Your task to perform on an android device: change alarm snooze length Image 0: 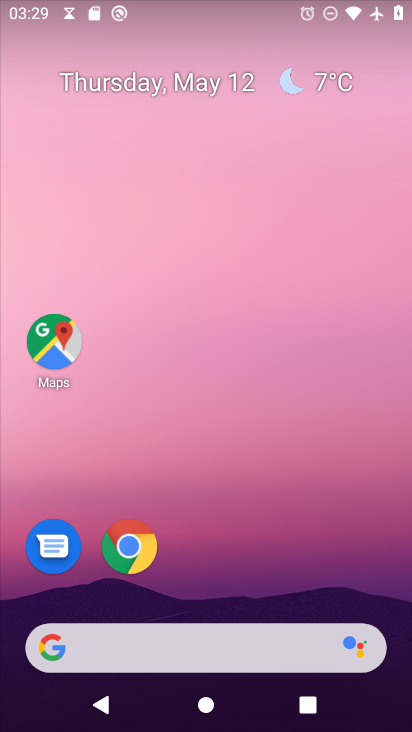
Step 0: press home button
Your task to perform on an android device: change alarm snooze length Image 1: 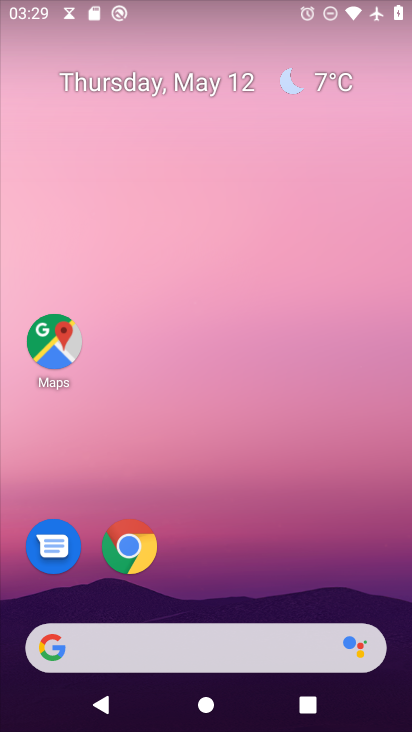
Step 1: drag from (228, 658) to (350, 146)
Your task to perform on an android device: change alarm snooze length Image 2: 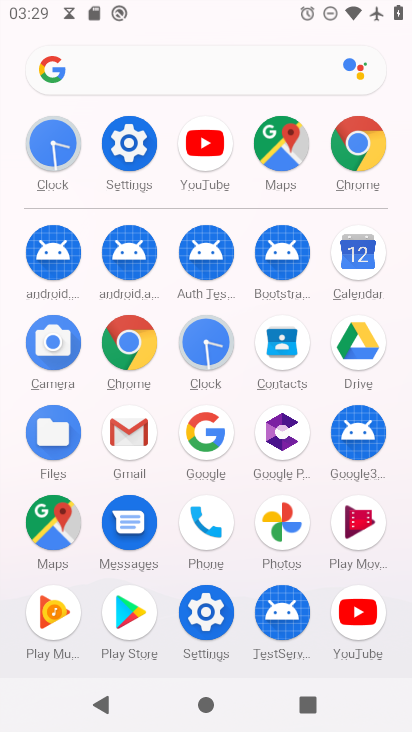
Step 2: click (203, 353)
Your task to perform on an android device: change alarm snooze length Image 3: 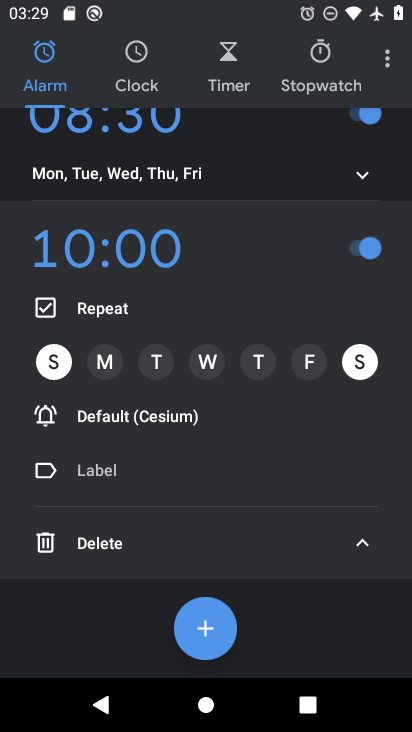
Step 3: click (390, 62)
Your task to perform on an android device: change alarm snooze length Image 4: 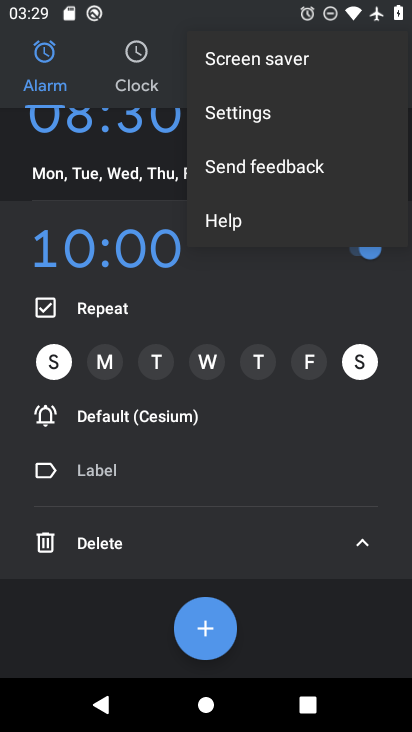
Step 4: click (266, 113)
Your task to perform on an android device: change alarm snooze length Image 5: 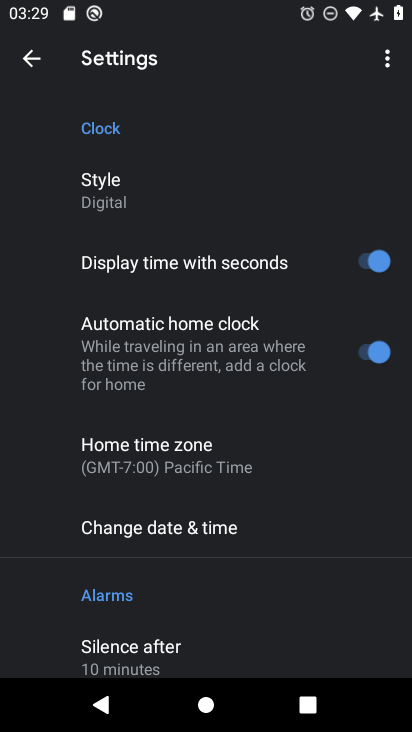
Step 5: drag from (258, 591) to (341, 242)
Your task to perform on an android device: change alarm snooze length Image 6: 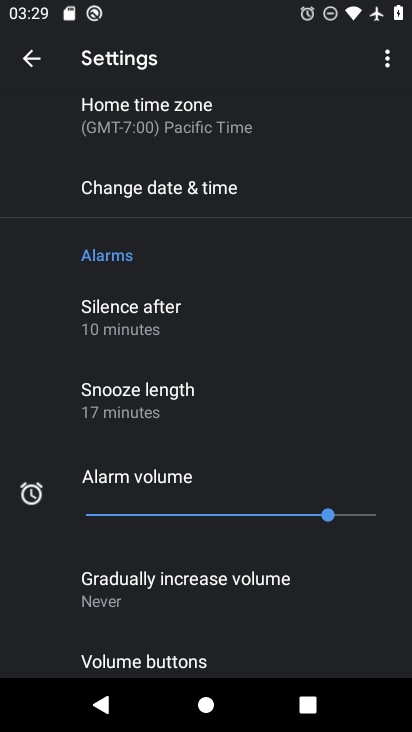
Step 6: click (135, 406)
Your task to perform on an android device: change alarm snooze length Image 7: 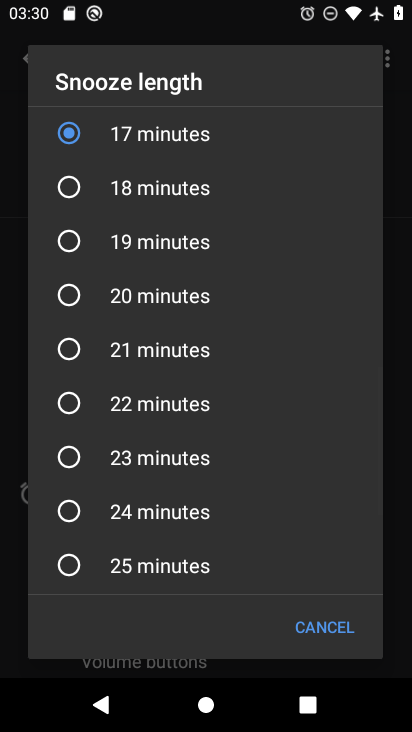
Step 7: drag from (231, 160) to (204, 560)
Your task to perform on an android device: change alarm snooze length Image 8: 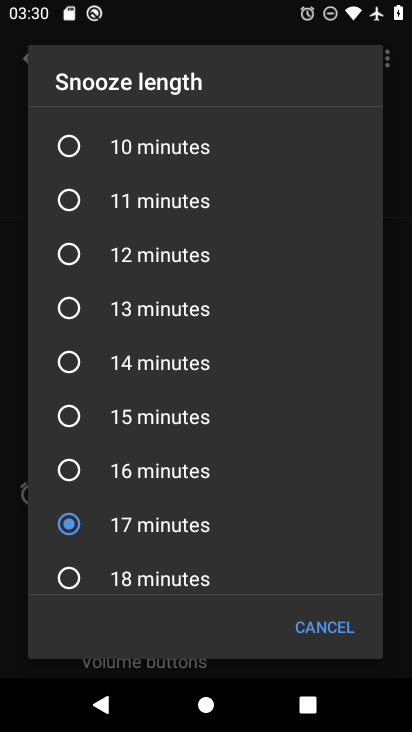
Step 8: click (69, 427)
Your task to perform on an android device: change alarm snooze length Image 9: 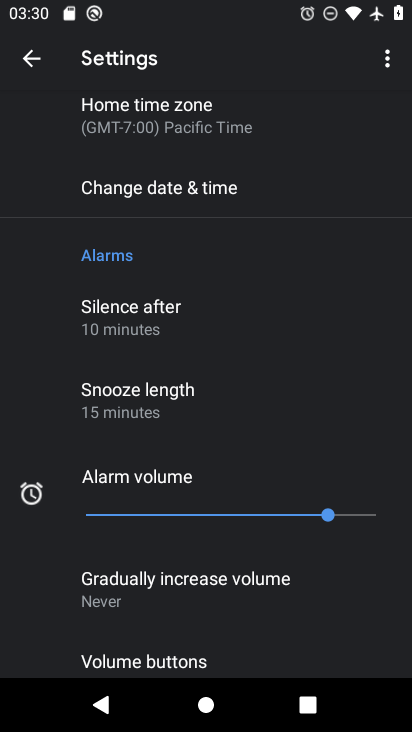
Step 9: task complete